Your task to perform on an android device: toggle pop-ups in chrome Image 0: 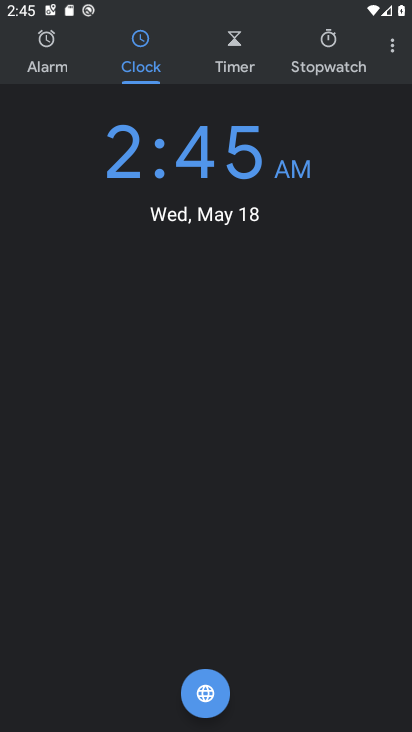
Step 0: click (52, 396)
Your task to perform on an android device: toggle pop-ups in chrome Image 1: 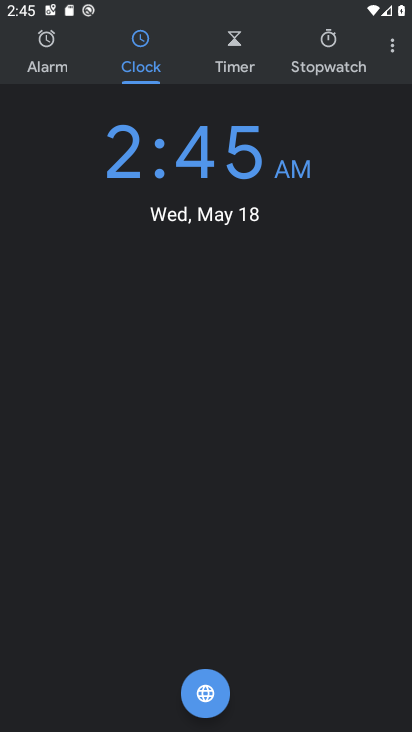
Step 1: press home button
Your task to perform on an android device: toggle pop-ups in chrome Image 2: 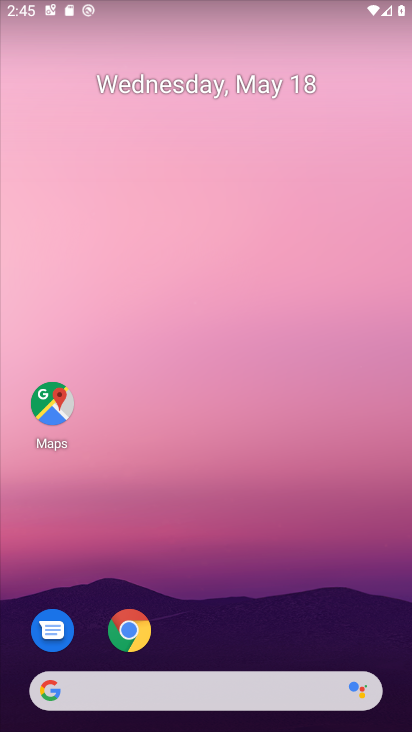
Step 2: click (128, 628)
Your task to perform on an android device: toggle pop-ups in chrome Image 3: 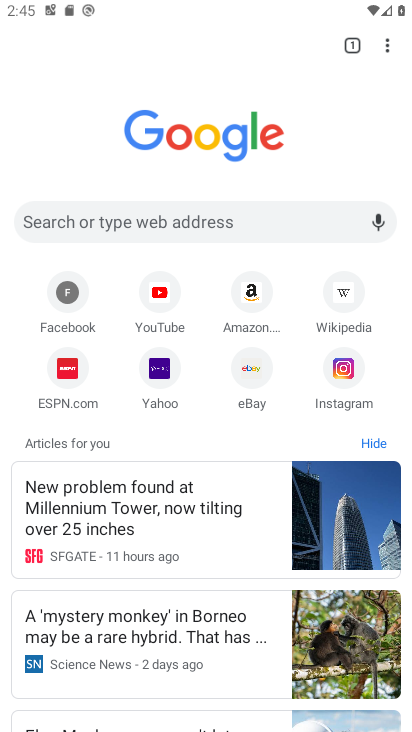
Step 3: click (387, 41)
Your task to perform on an android device: toggle pop-ups in chrome Image 4: 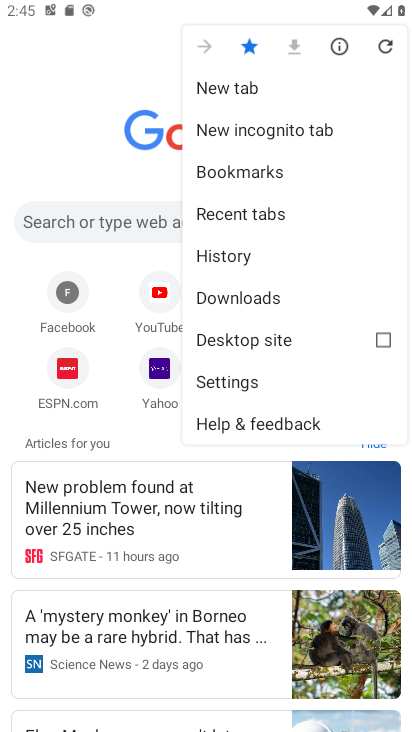
Step 4: click (272, 374)
Your task to perform on an android device: toggle pop-ups in chrome Image 5: 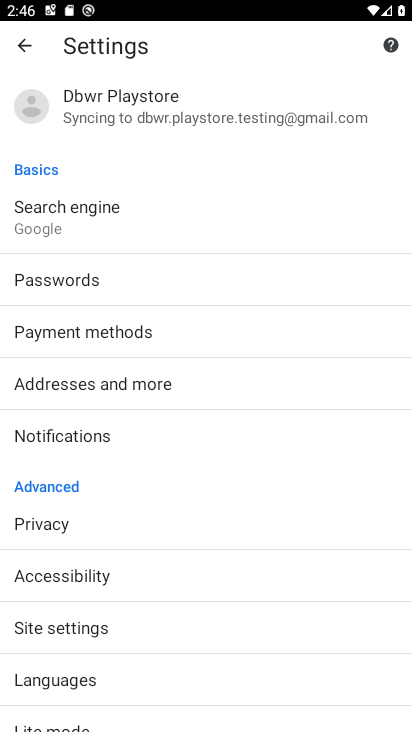
Step 5: click (125, 625)
Your task to perform on an android device: toggle pop-ups in chrome Image 6: 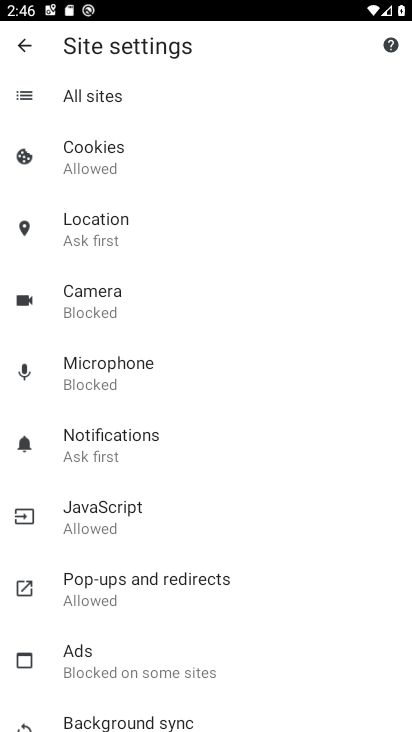
Step 6: click (140, 582)
Your task to perform on an android device: toggle pop-ups in chrome Image 7: 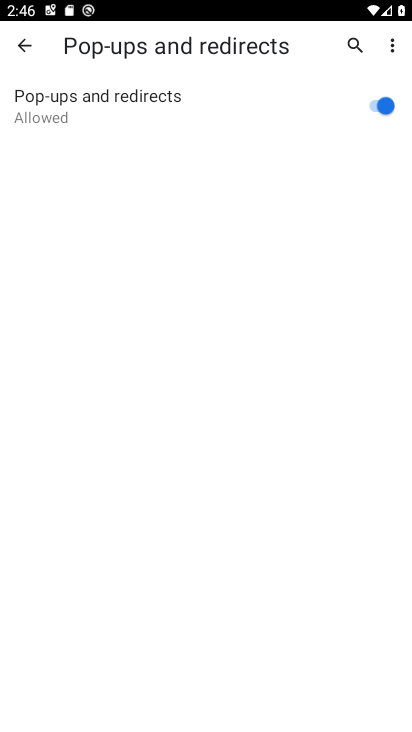
Step 7: click (376, 106)
Your task to perform on an android device: toggle pop-ups in chrome Image 8: 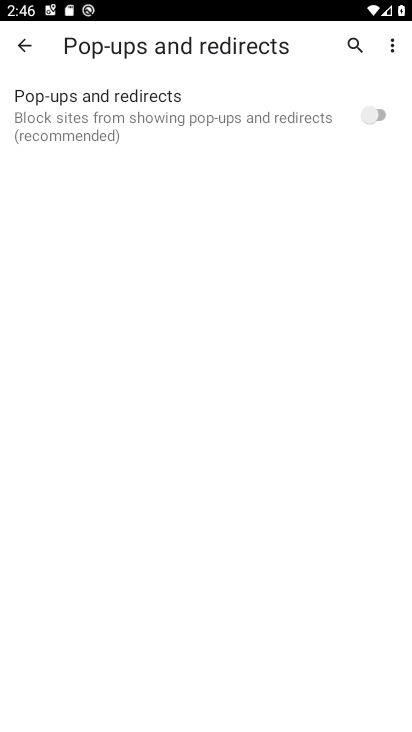
Step 8: task complete